Your task to perform on an android device: set default search engine in the chrome app Image 0: 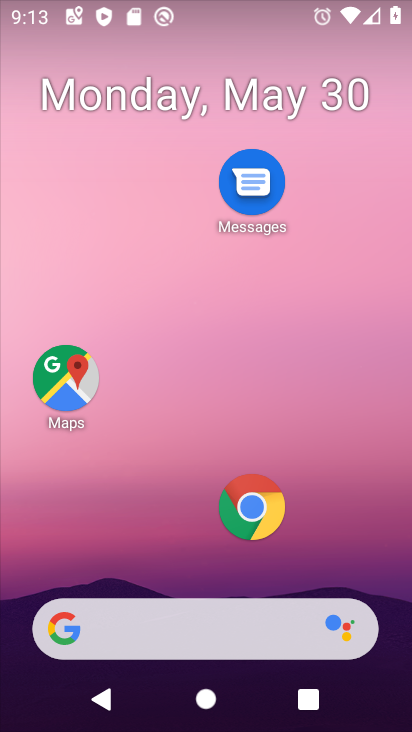
Step 0: click (273, 539)
Your task to perform on an android device: set default search engine in the chrome app Image 1: 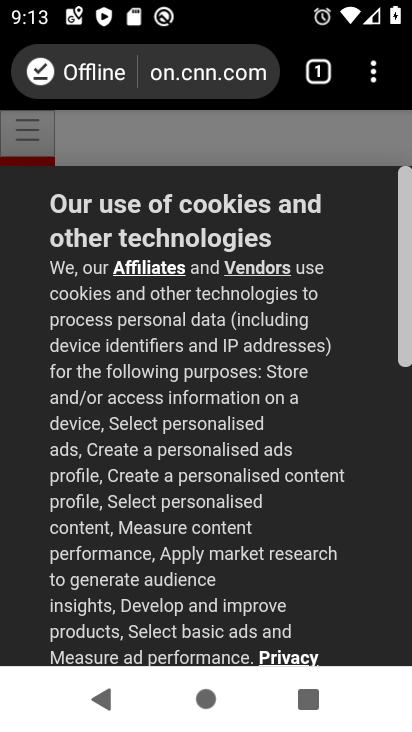
Step 1: click (372, 70)
Your task to perform on an android device: set default search engine in the chrome app Image 2: 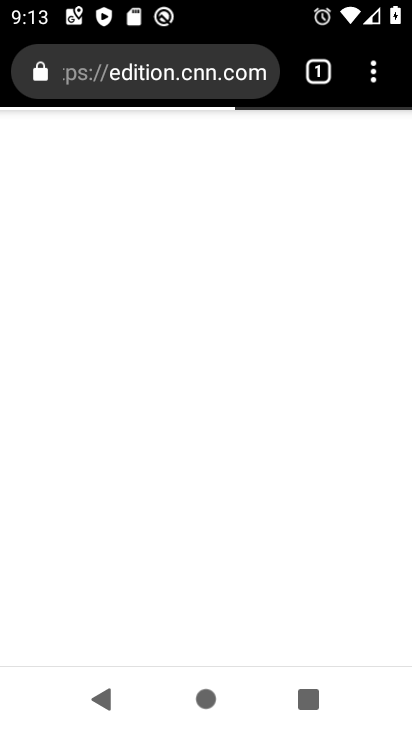
Step 2: click (374, 80)
Your task to perform on an android device: set default search engine in the chrome app Image 3: 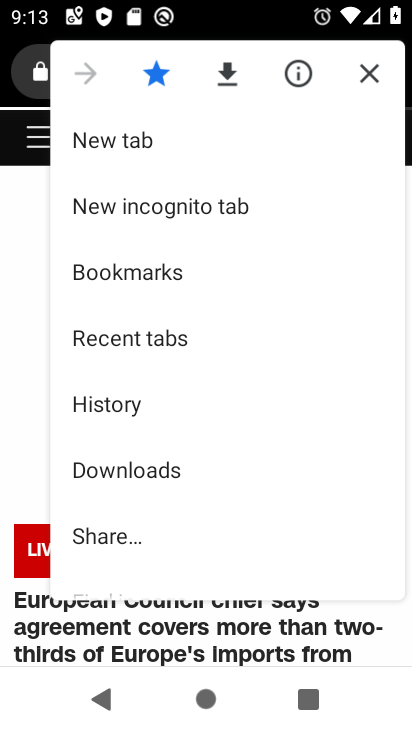
Step 3: drag from (122, 537) to (119, 147)
Your task to perform on an android device: set default search engine in the chrome app Image 4: 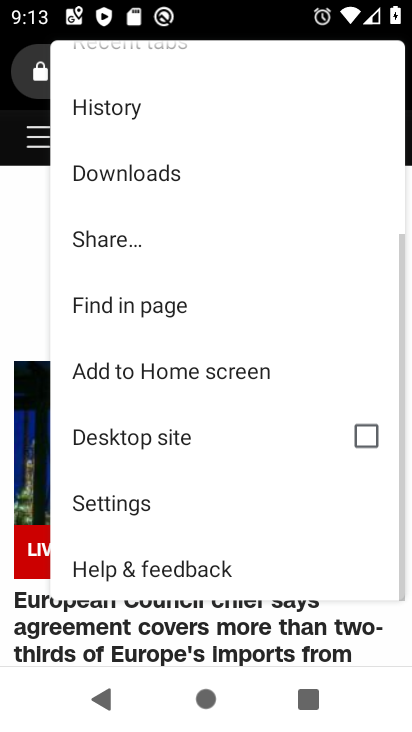
Step 4: click (137, 500)
Your task to perform on an android device: set default search engine in the chrome app Image 5: 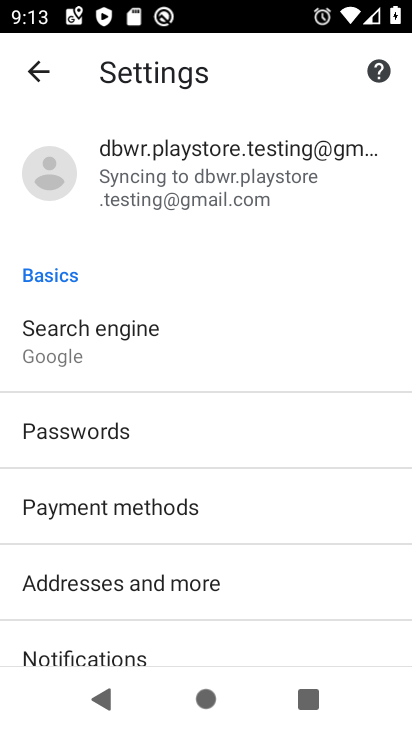
Step 5: click (86, 340)
Your task to perform on an android device: set default search engine in the chrome app Image 6: 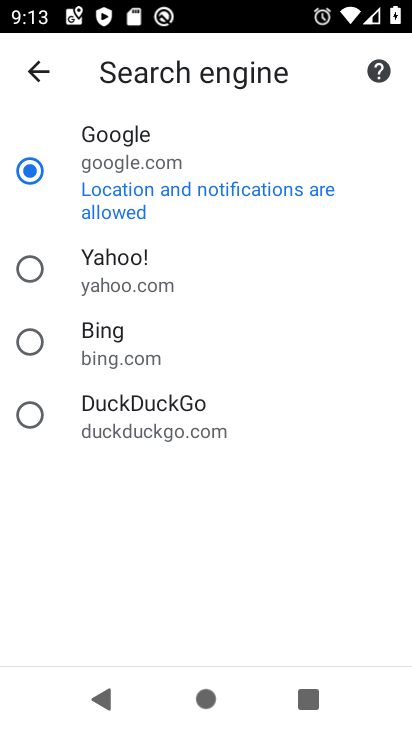
Step 6: click (37, 264)
Your task to perform on an android device: set default search engine in the chrome app Image 7: 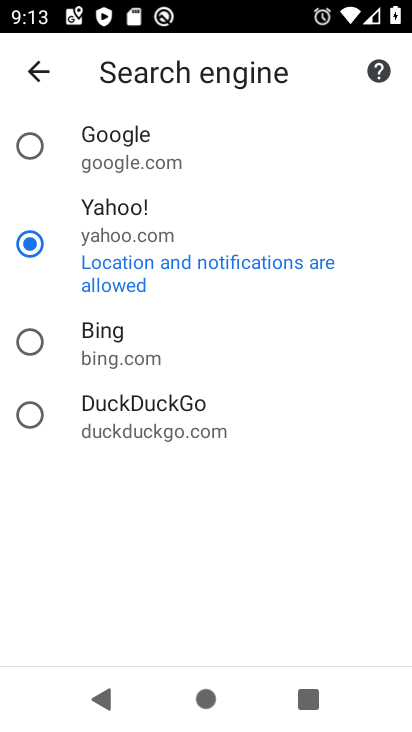
Step 7: task complete